Your task to perform on an android device: Open notification settings Image 0: 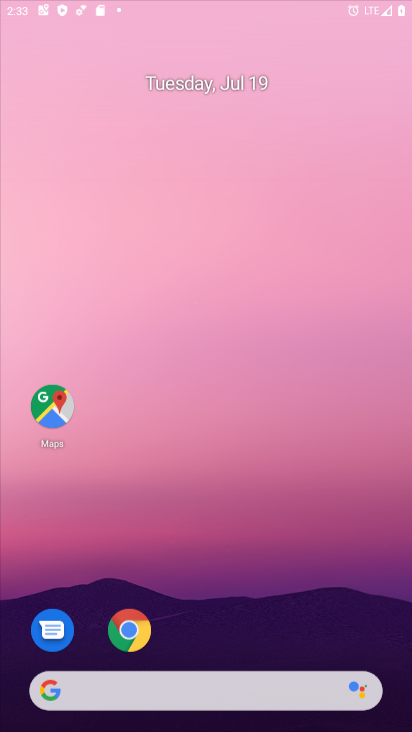
Step 0: press home button
Your task to perform on an android device: Open notification settings Image 1: 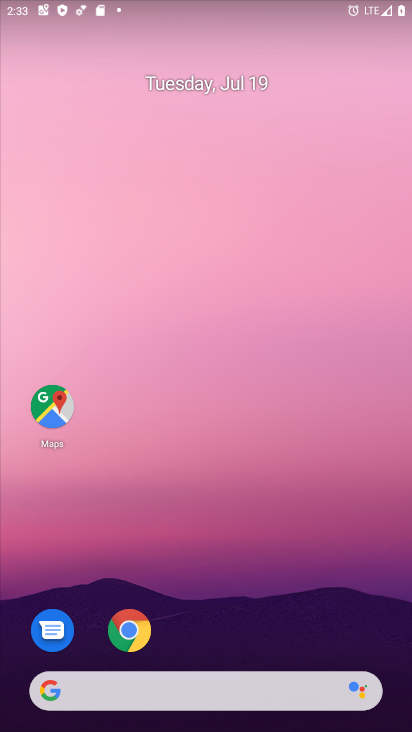
Step 1: drag from (227, 653) to (297, 25)
Your task to perform on an android device: Open notification settings Image 2: 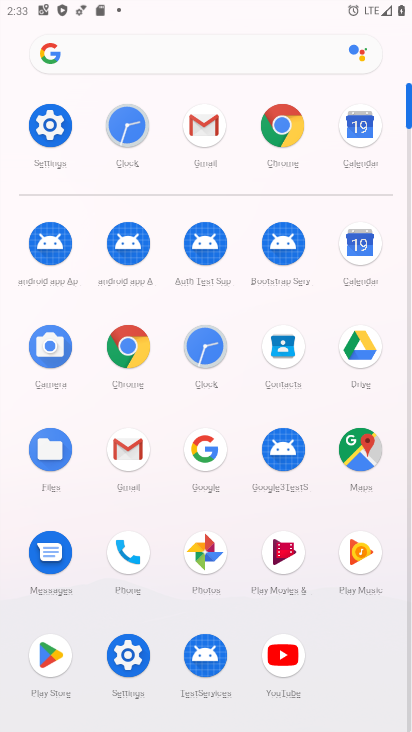
Step 2: click (46, 116)
Your task to perform on an android device: Open notification settings Image 3: 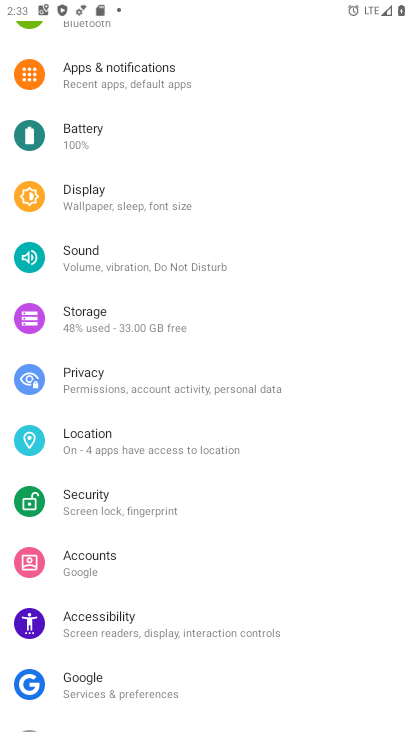
Step 3: click (120, 70)
Your task to perform on an android device: Open notification settings Image 4: 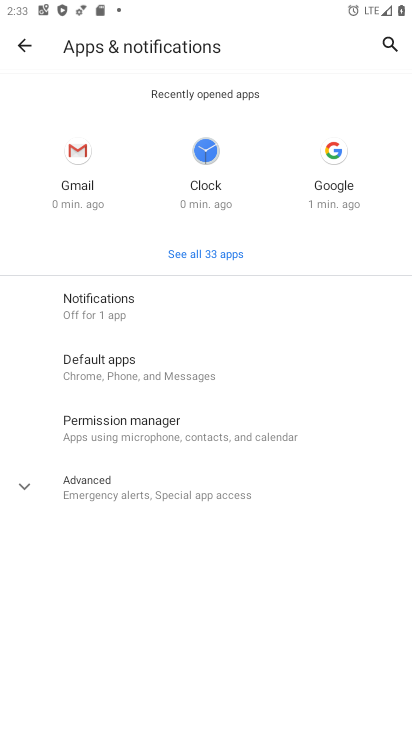
Step 4: click (148, 301)
Your task to perform on an android device: Open notification settings Image 5: 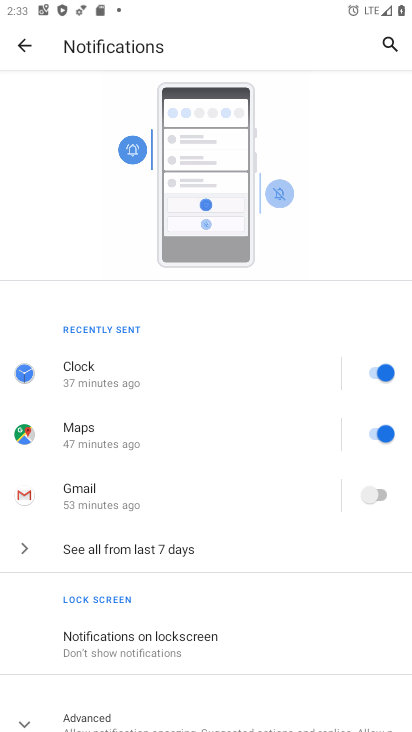
Step 5: drag from (234, 676) to (268, 183)
Your task to perform on an android device: Open notification settings Image 6: 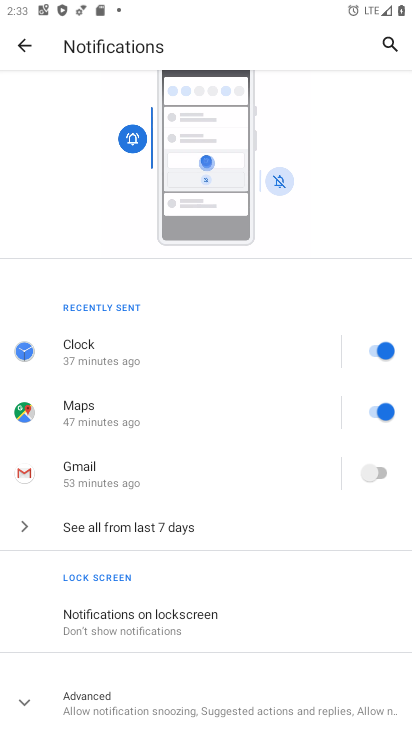
Step 6: click (27, 704)
Your task to perform on an android device: Open notification settings Image 7: 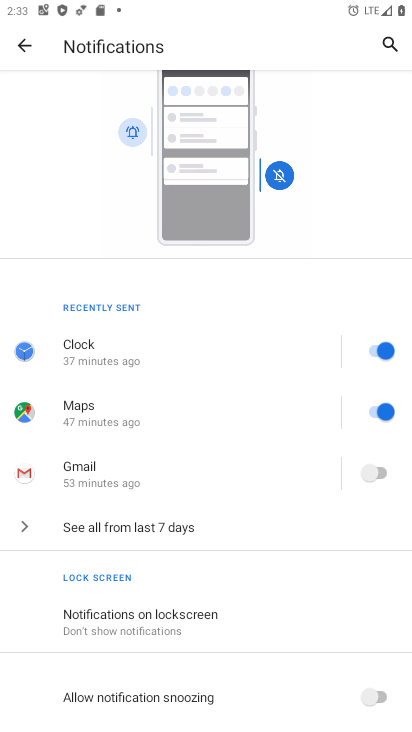
Step 7: task complete